Your task to perform on an android device: turn on wifi Image 0: 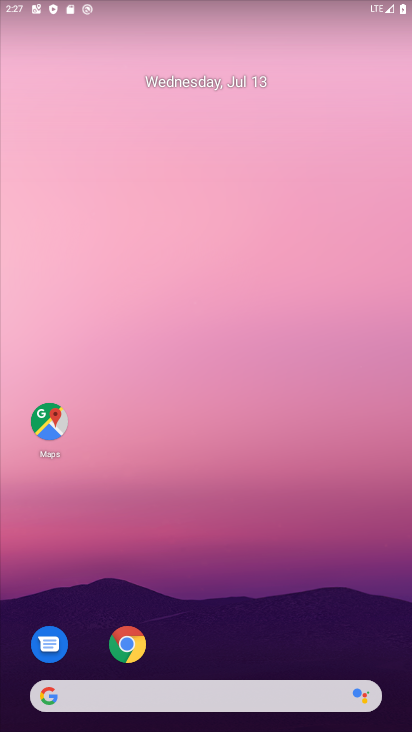
Step 0: drag from (305, 613) to (206, 76)
Your task to perform on an android device: turn on wifi Image 1: 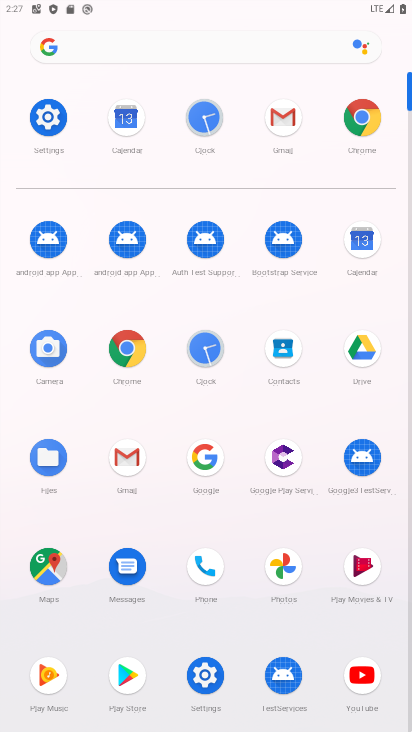
Step 1: click (50, 113)
Your task to perform on an android device: turn on wifi Image 2: 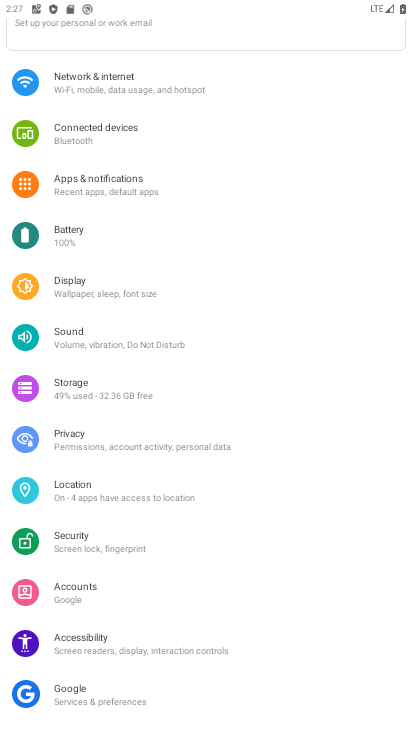
Step 2: click (171, 97)
Your task to perform on an android device: turn on wifi Image 3: 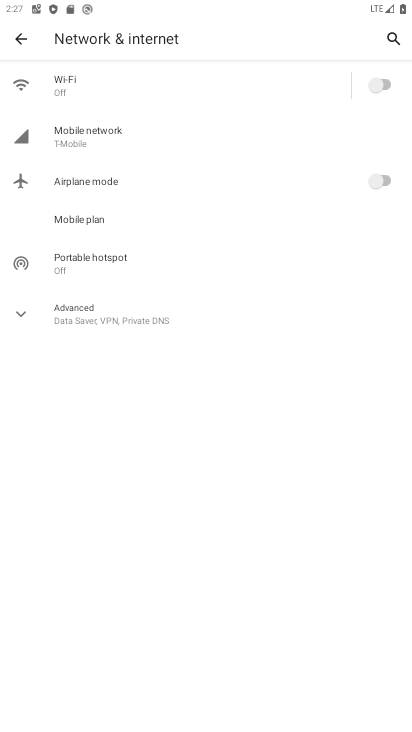
Step 3: click (391, 79)
Your task to perform on an android device: turn on wifi Image 4: 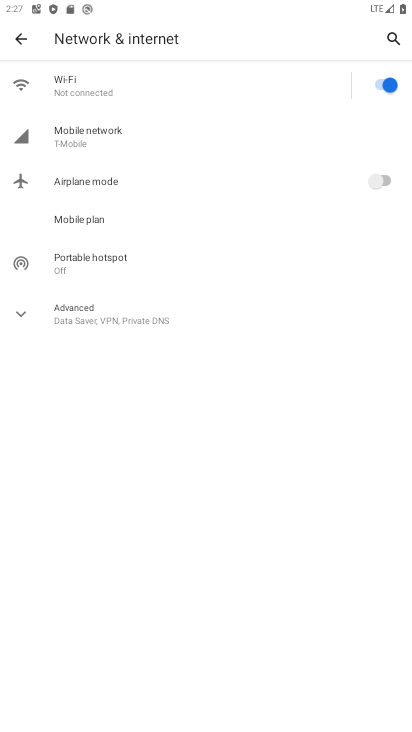
Step 4: task complete